Your task to perform on an android device: When is my next appointment? Image 0: 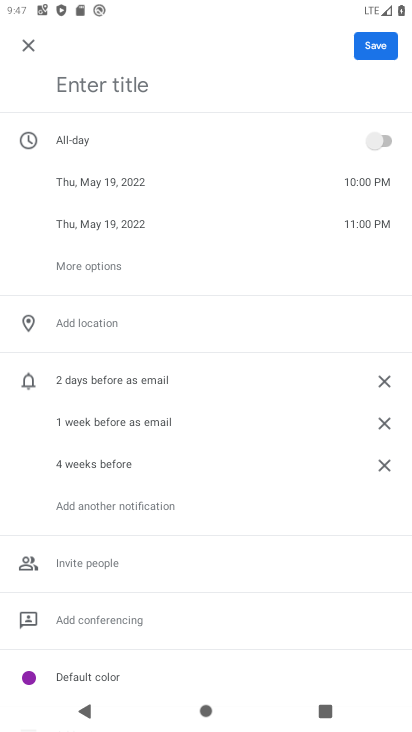
Step 0: click (28, 51)
Your task to perform on an android device: When is my next appointment? Image 1: 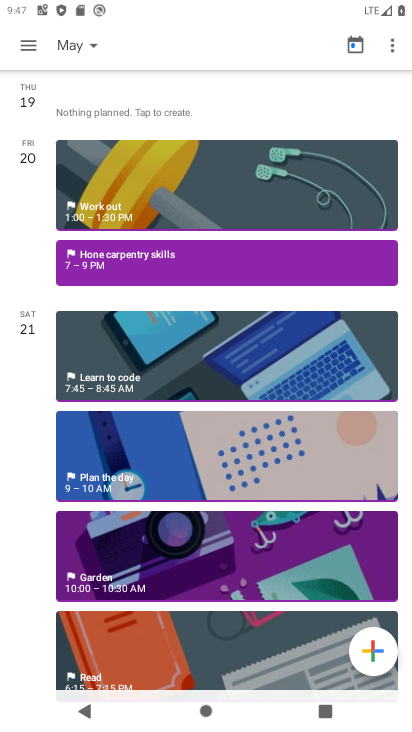
Step 1: drag from (125, 268) to (132, 482)
Your task to perform on an android device: When is my next appointment? Image 2: 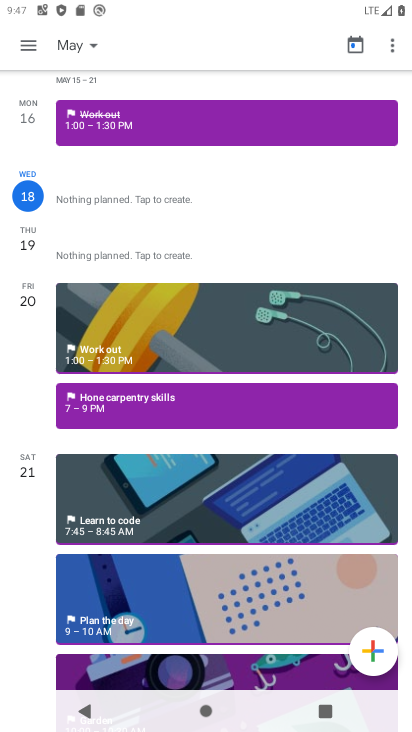
Step 2: click (151, 405)
Your task to perform on an android device: When is my next appointment? Image 3: 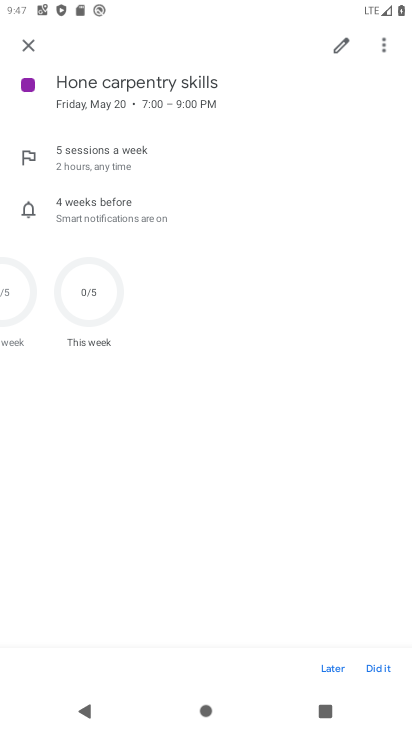
Step 3: task complete